Your task to perform on an android device: stop showing notifications on the lock screen Image 0: 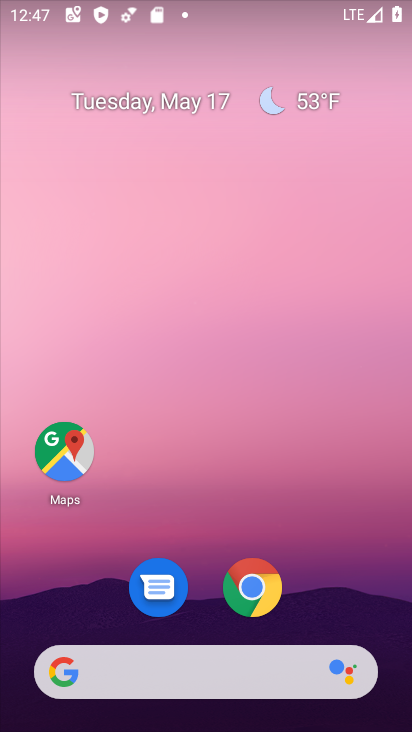
Step 0: drag from (218, 622) to (218, 63)
Your task to perform on an android device: stop showing notifications on the lock screen Image 1: 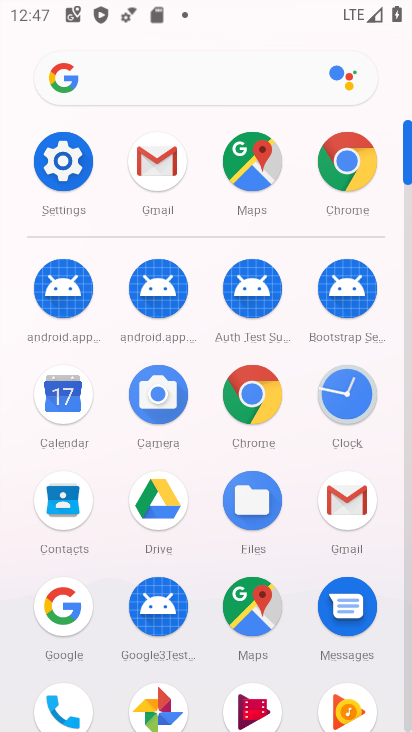
Step 1: click (70, 182)
Your task to perform on an android device: stop showing notifications on the lock screen Image 2: 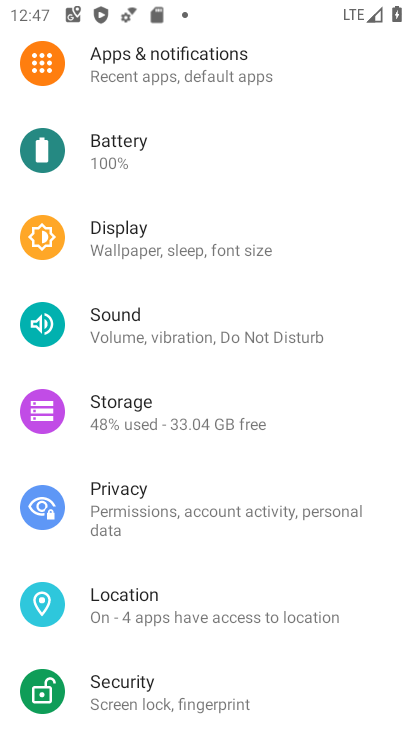
Step 2: click (178, 80)
Your task to perform on an android device: stop showing notifications on the lock screen Image 3: 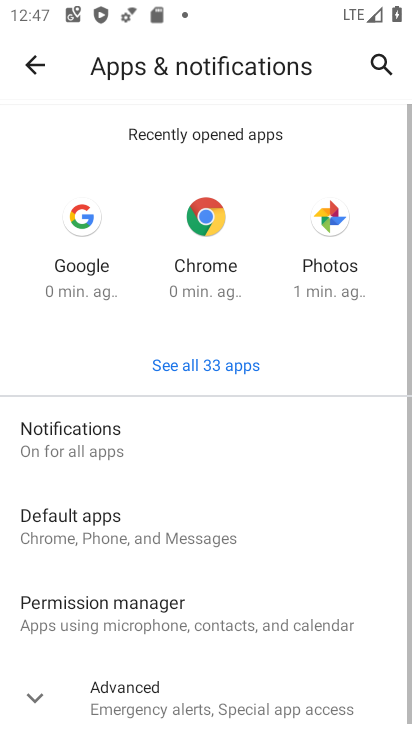
Step 3: click (90, 684)
Your task to perform on an android device: stop showing notifications on the lock screen Image 4: 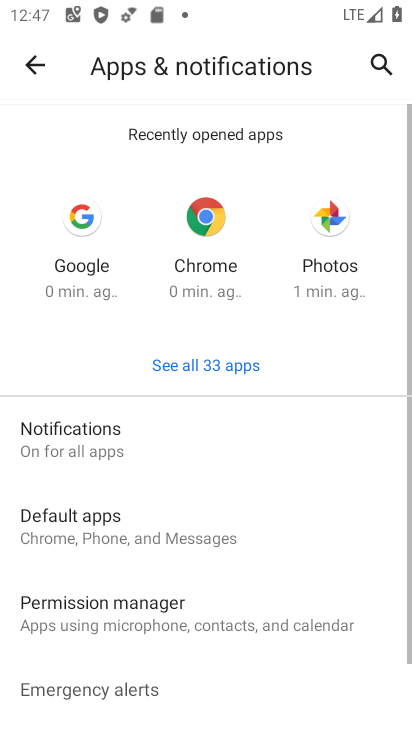
Step 4: drag from (85, 684) to (75, 184)
Your task to perform on an android device: stop showing notifications on the lock screen Image 5: 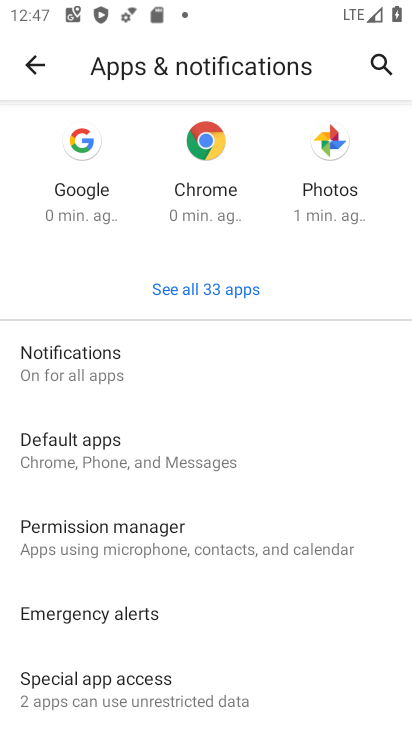
Step 5: click (139, 385)
Your task to perform on an android device: stop showing notifications on the lock screen Image 6: 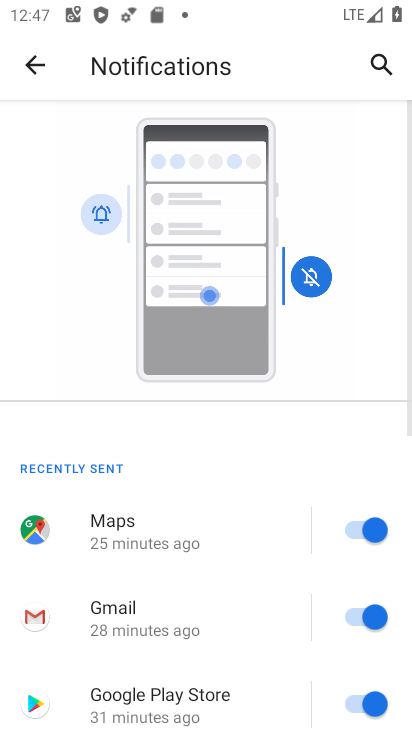
Step 6: drag from (199, 597) to (175, 62)
Your task to perform on an android device: stop showing notifications on the lock screen Image 7: 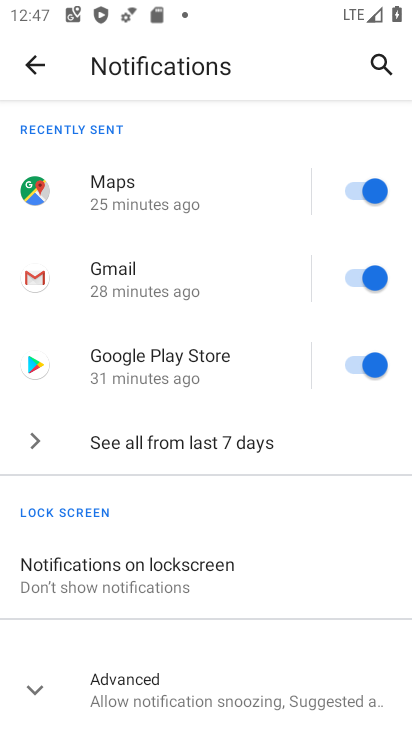
Step 7: click (97, 585)
Your task to perform on an android device: stop showing notifications on the lock screen Image 8: 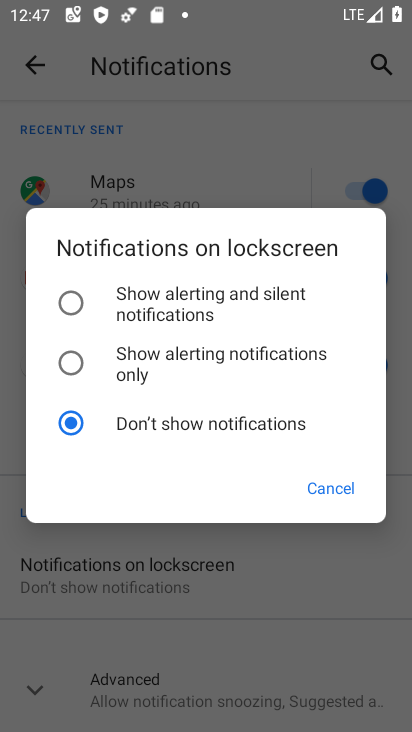
Step 8: click (102, 417)
Your task to perform on an android device: stop showing notifications on the lock screen Image 9: 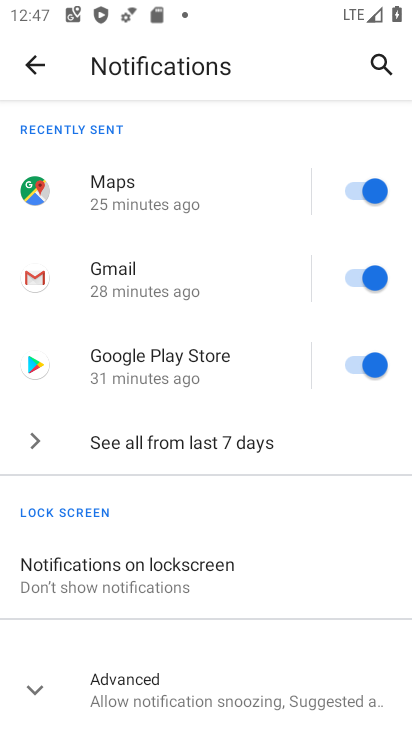
Step 9: task complete